Your task to perform on an android device: find snoozed emails in the gmail app Image 0: 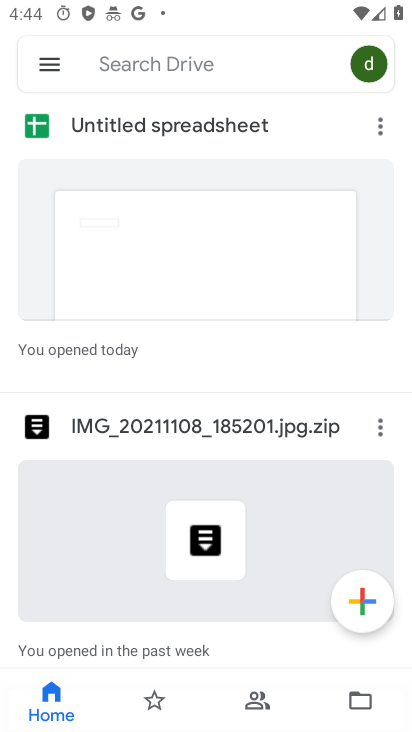
Step 0: press home button
Your task to perform on an android device: find snoozed emails in the gmail app Image 1: 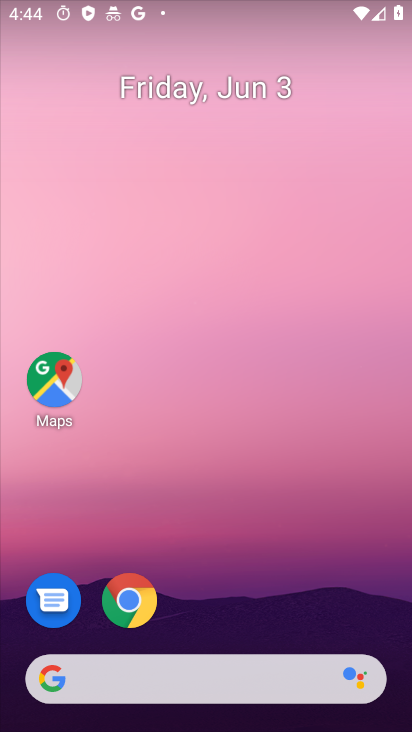
Step 1: drag from (395, 697) to (323, 91)
Your task to perform on an android device: find snoozed emails in the gmail app Image 2: 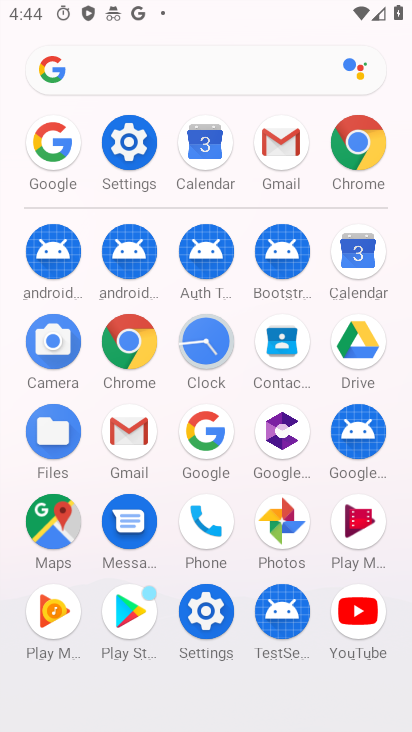
Step 2: click (125, 434)
Your task to perform on an android device: find snoozed emails in the gmail app Image 3: 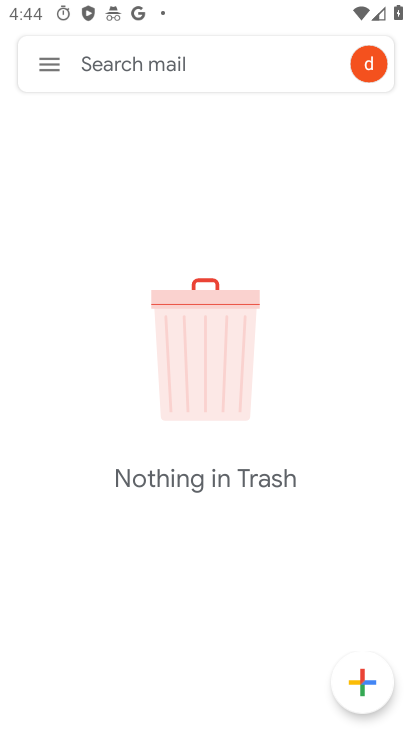
Step 3: click (52, 65)
Your task to perform on an android device: find snoozed emails in the gmail app Image 4: 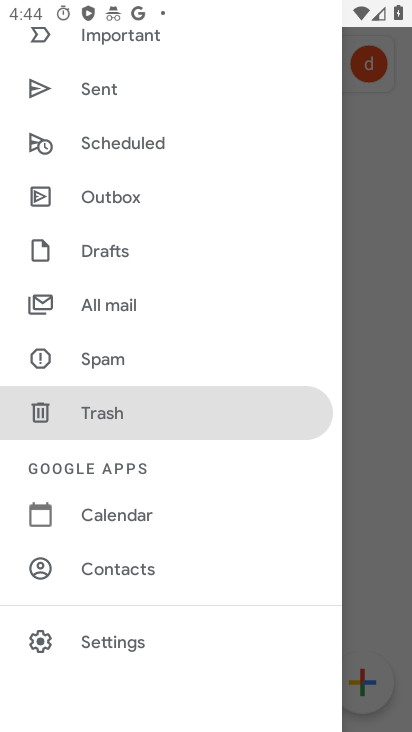
Step 4: drag from (247, 141) to (218, 480)
Your task to perform on an android device: find snoozed emails in the gmail app Image 5: 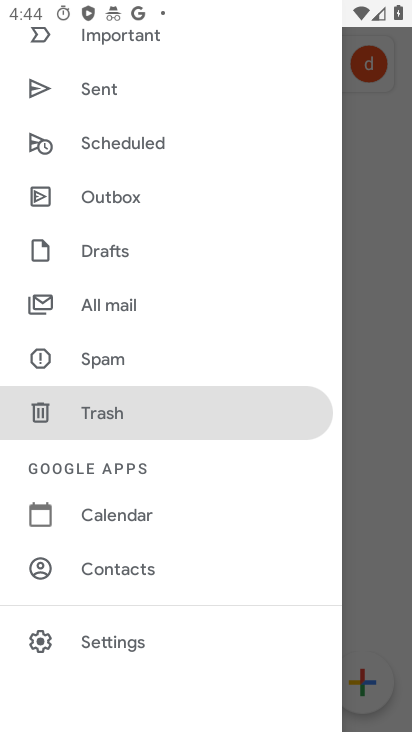
Step 5: drag from (209, 198) to (226, 550)
Your task to perform on an android device: find snoozed emails in the gmail app Image 6: 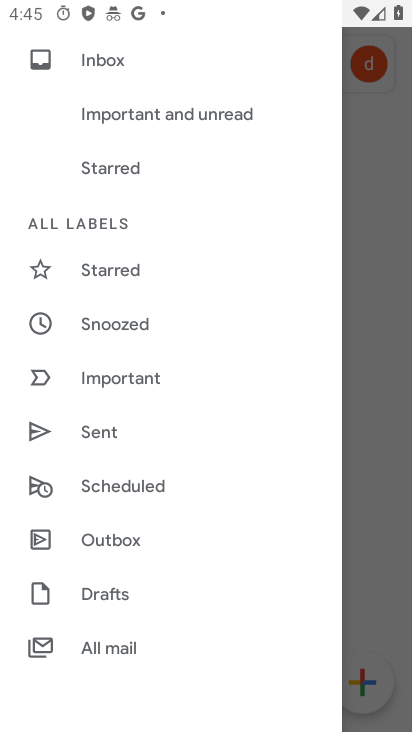
Step 6: click (143, 320)
Your task to perform on an android device: find snoozed emails in the gmail app Image 7: 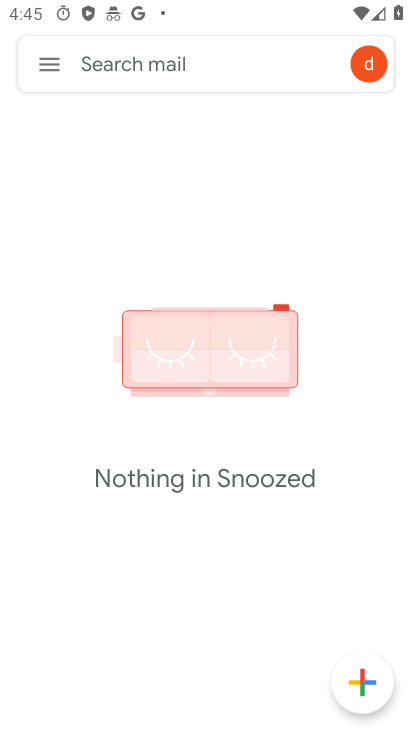
Step 7: task complete